Your task to perform on an android device: toggle improve location accuracy Image 0: 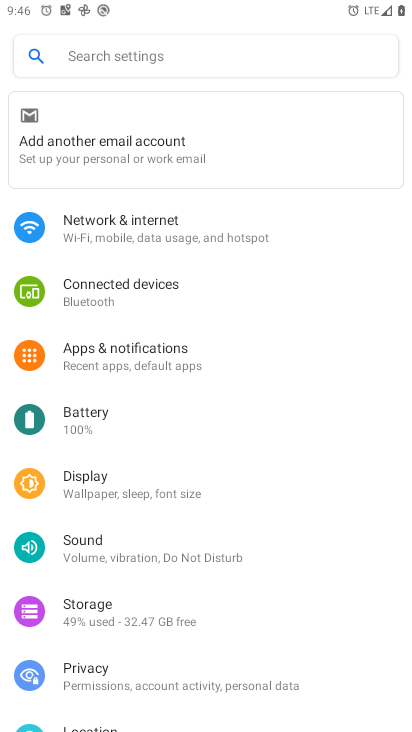
Step 0: press home button
Your task to perform on an android device: toggle improve location accuracy Image 1: 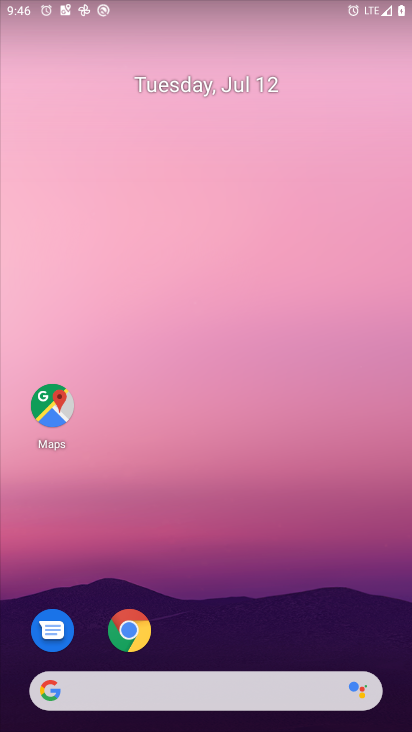
Step 1: drag from (228, 585) to (240, 115)
Your task to perform on an android device: toggle improve location accuracy Image 2: 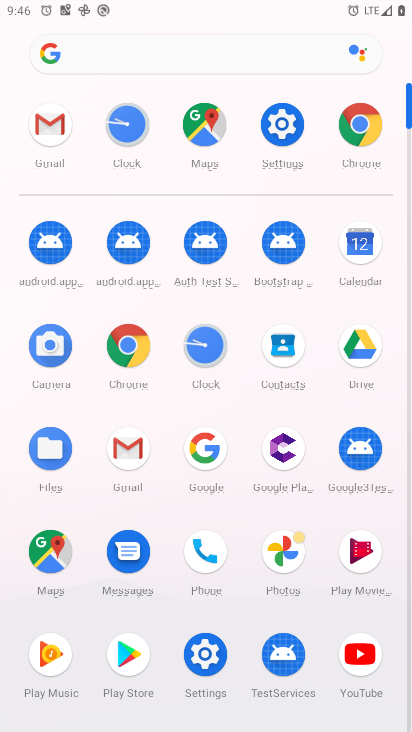
Step 2: click (275, 129)
Your task to perform on an android device: toggle improve location accuracy Image 3: 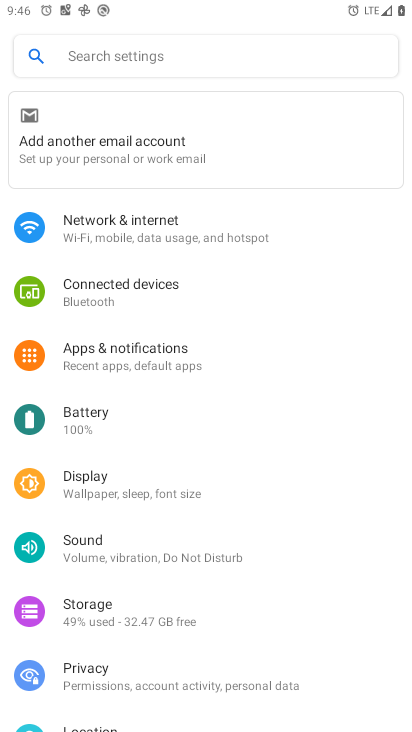
Step 3: drag from (181, 654) to (181, 321)
Your task to perform on an android device: toggle improve location accuracy Image 4: 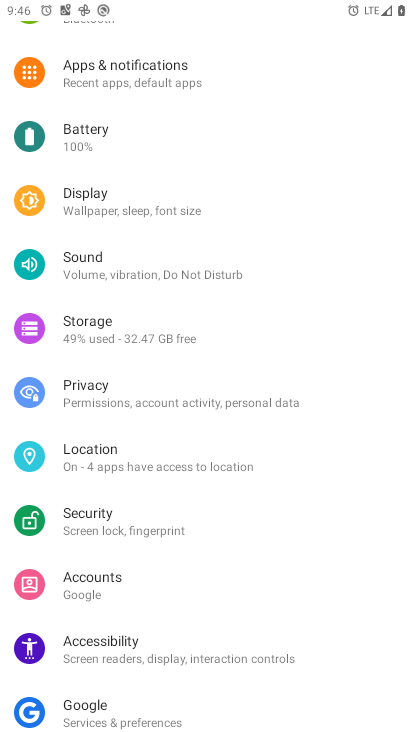
Step 4: click (104, 458)
Your task to perform on an android device: toggle improve location accuracy Image 5: 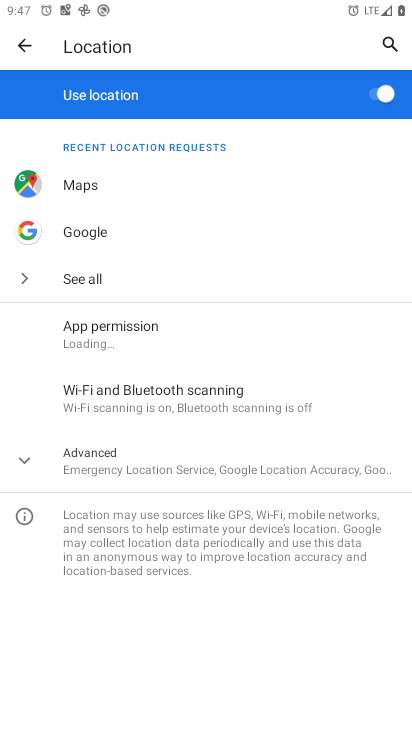
Step 5: click (30, 466)
Your task to perform on an android device: toggle improve location accuracy Image 6: 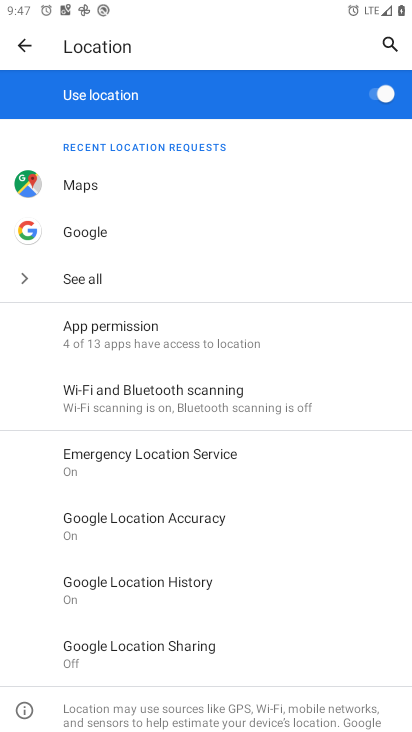
Step 6: click (114, 531)
Your task to perform on an android device: toggle improve location accuracy Image 7: 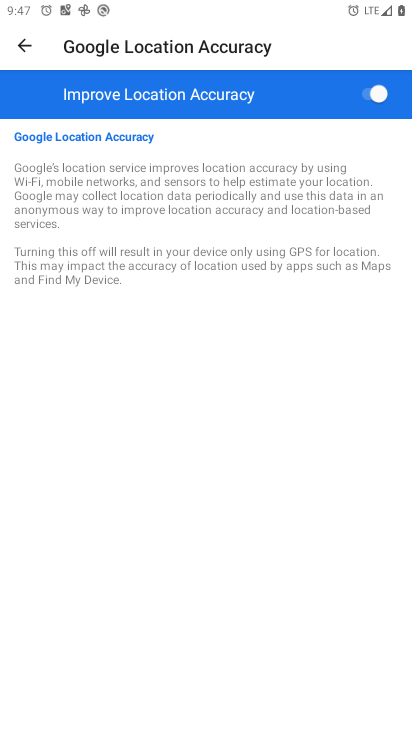
Step 7: click (368, 87)
Your task to perform on an android device: toggle improve location accuracy Image 8: 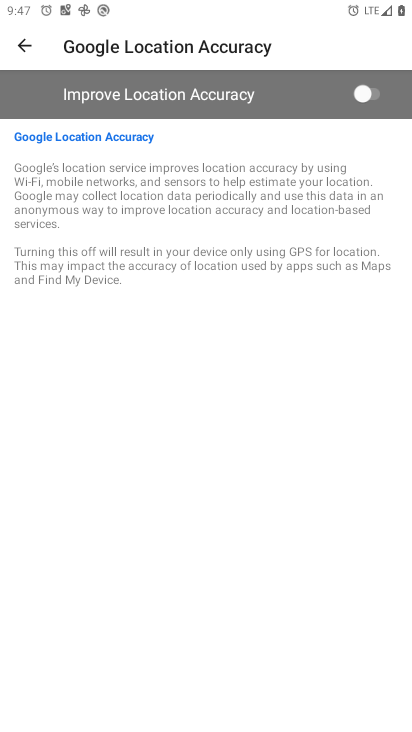
Step 8: task complete